Your task to perform on an android device: manage bookmarks in the chrome app Image 0: 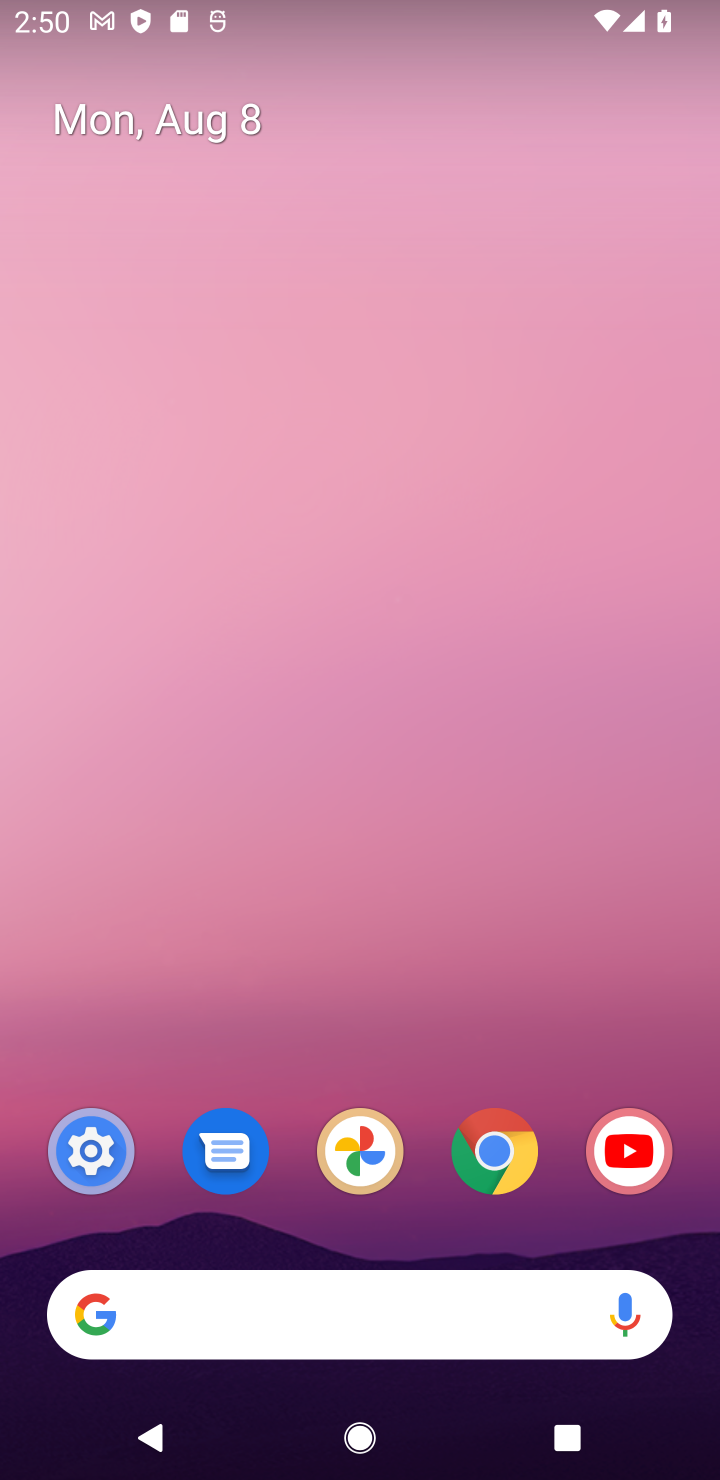
Step 0: click (523, 1134)
Your task to perform on an android device: manage bookmarks in the chrome app Image 1: 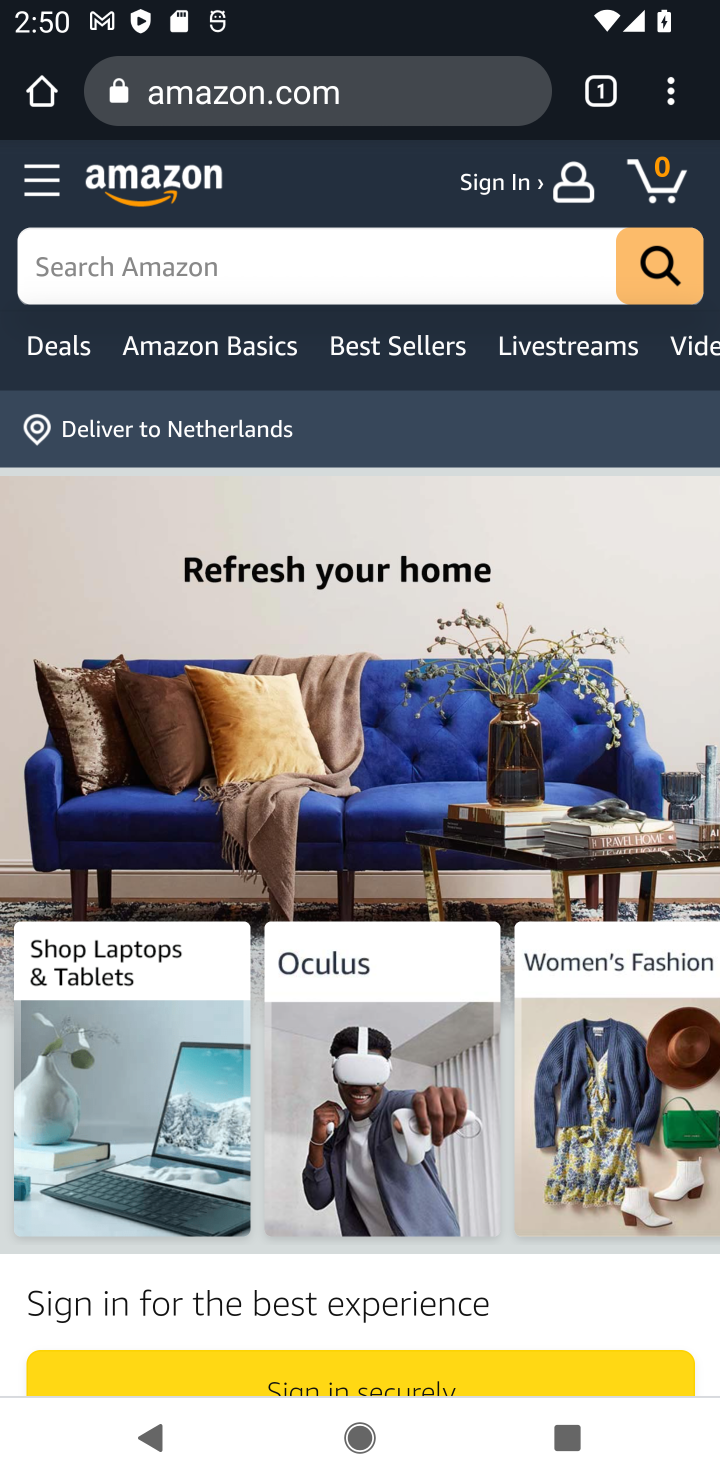
Step 1: click (680, 111)
Your task to perform on an android device: manage bookmarks in the chrome app Image 2: 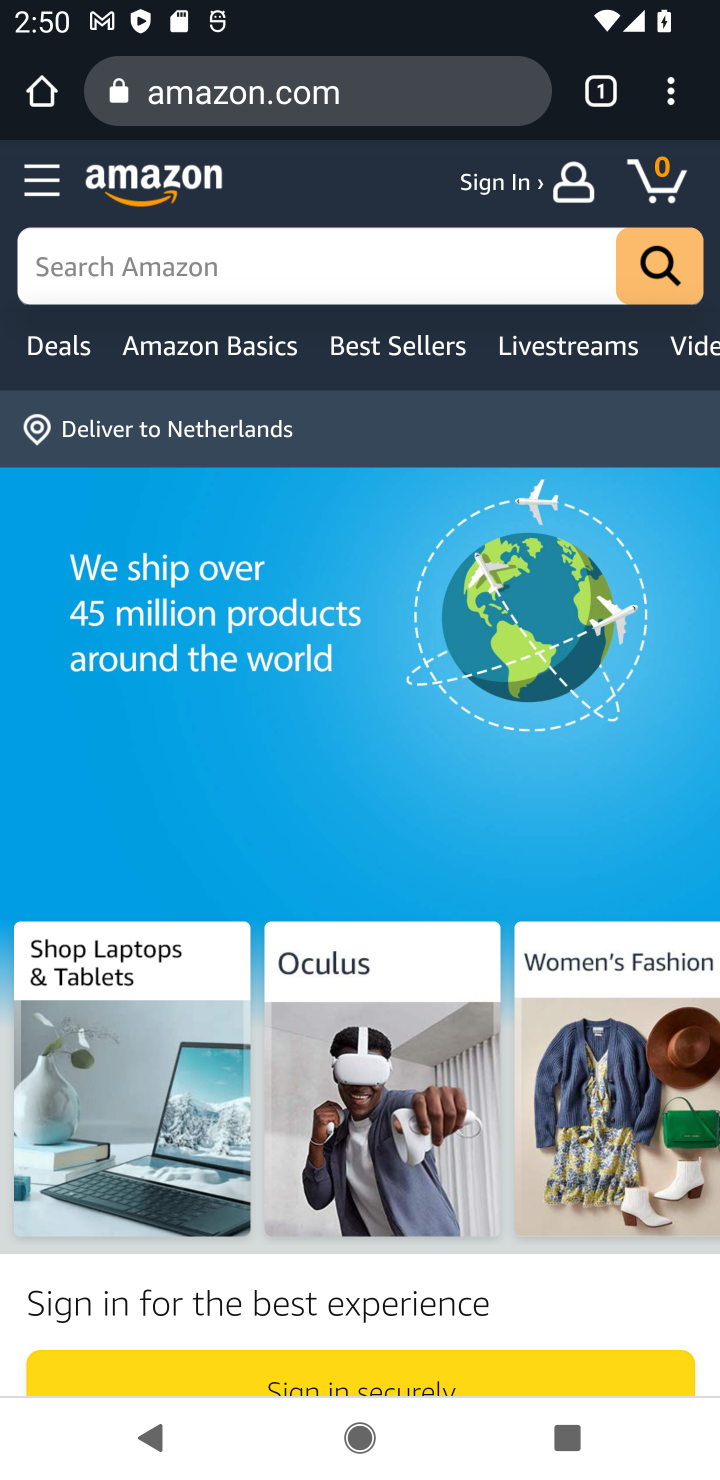
Step 2: drag from (677, 109) to (465, 540)
Your task to perform on an android device: manage bookmarks in the chrome app Image 3: 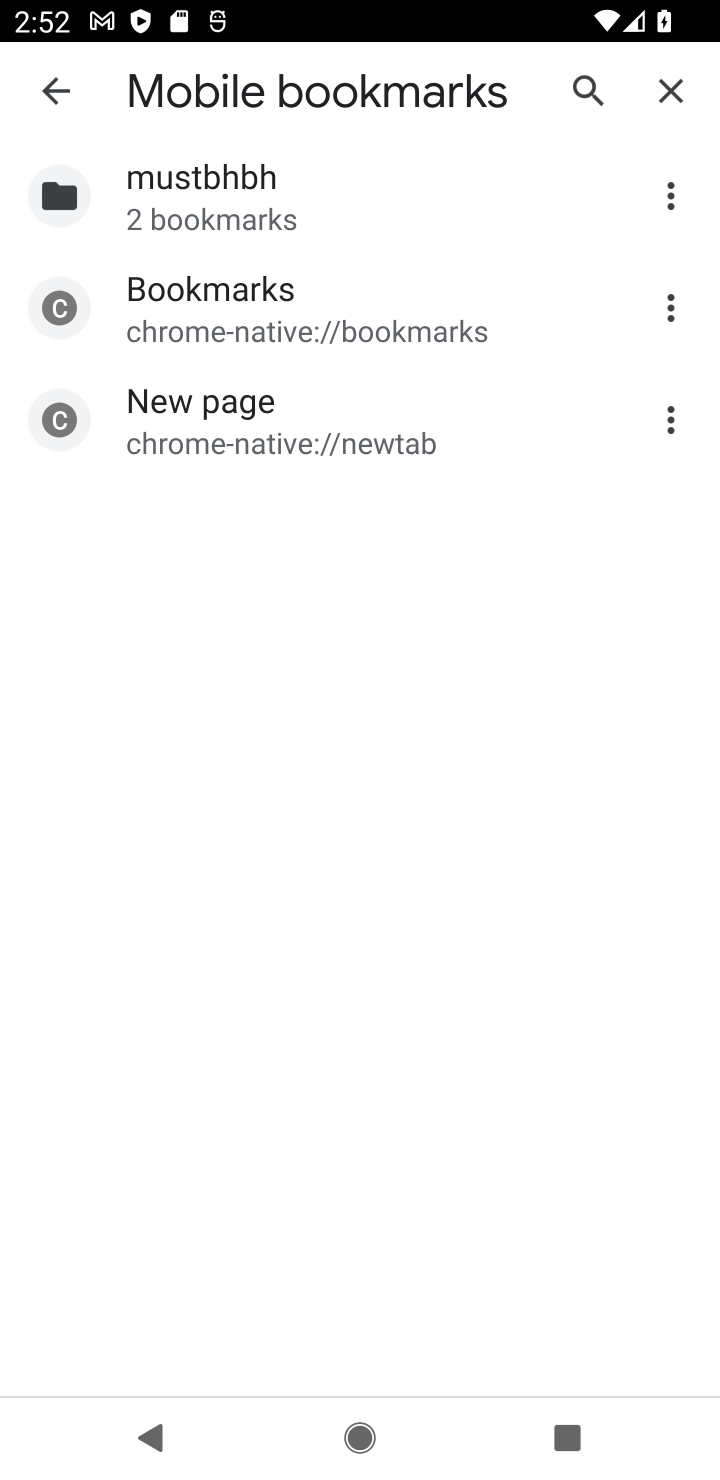
Step 3: click (596, 303)
Your task to perform on an android device: manage bookmarks in the chrome app Image 4: 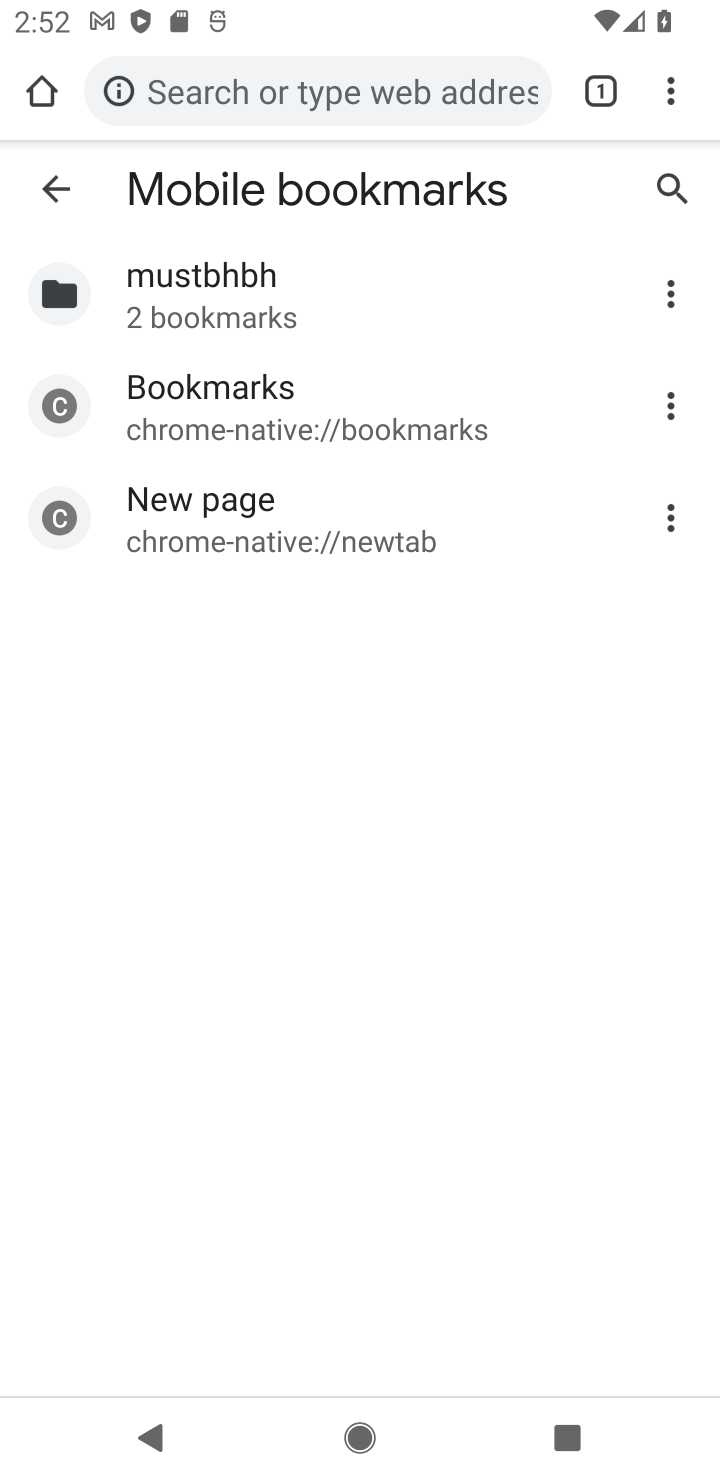
Step 4: click (667, 392)
Your task to perform on an android device: manage bookmarks in the chrome app Image 5: 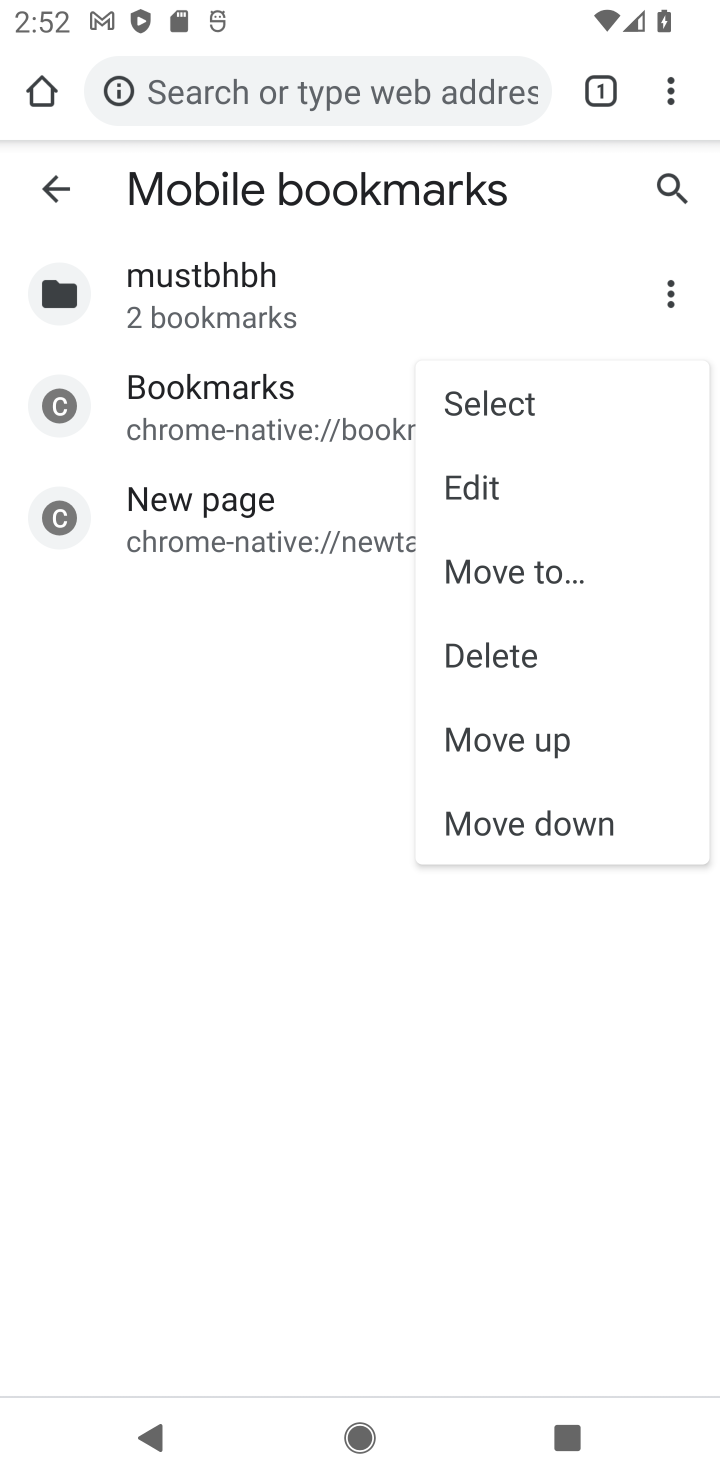
Step 5: click (670, 404)
Your task to perform on an android device: manage bookmarks in the chrome app Image 6: 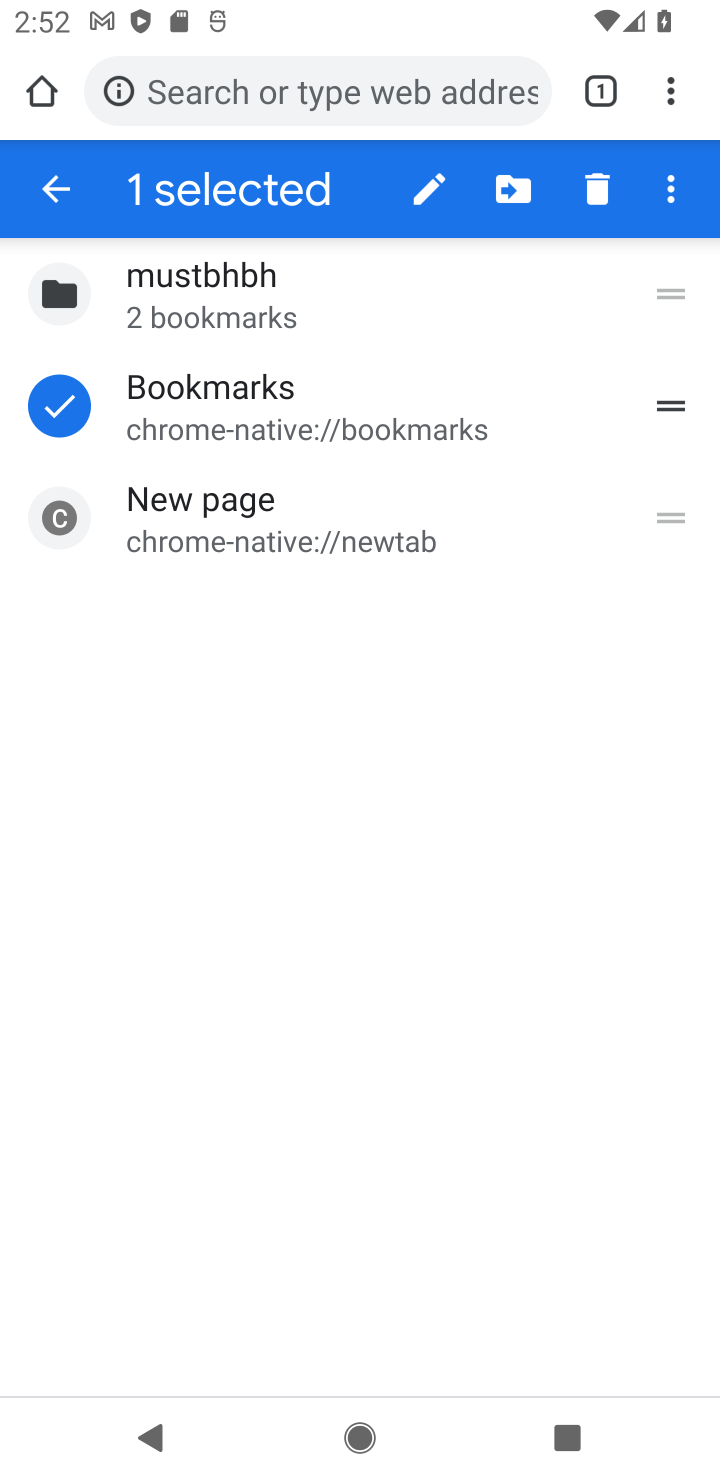
Step 6: click (597, 185)
Your task to perform on an android device: manage bookmarks in the chrome app Image 7: 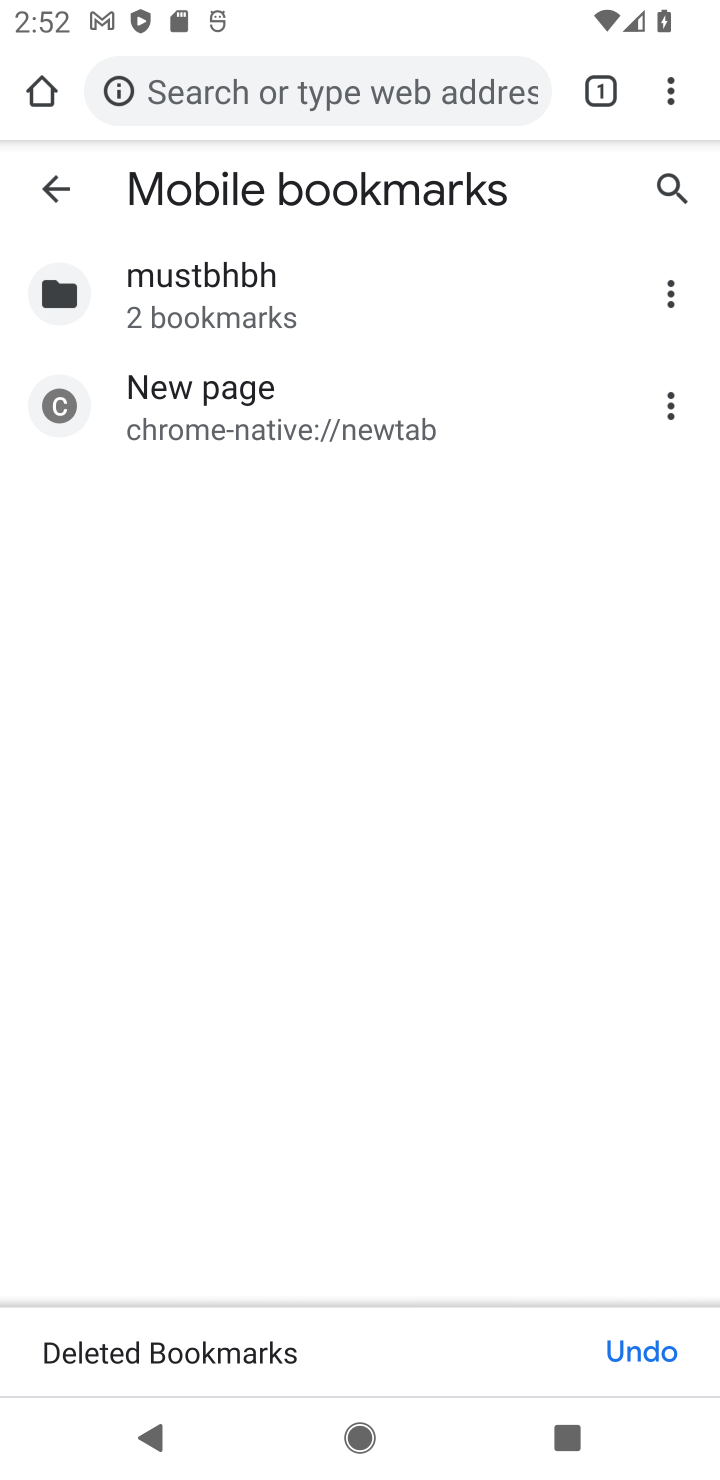
Step 7: task complete